Your task to perform on an android device: check data usage Image 0: 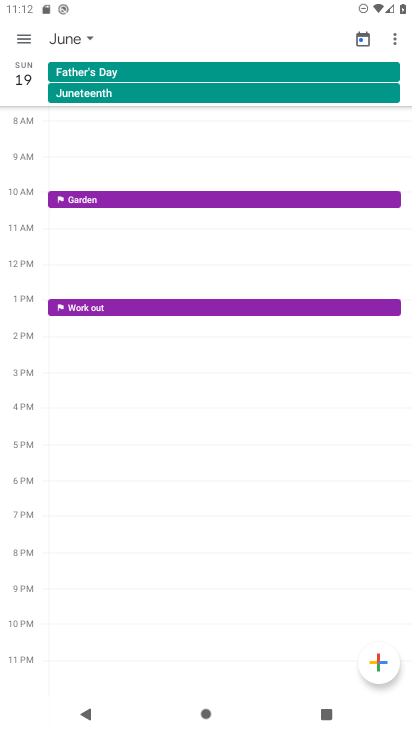
Step 0: press home button
Your task to perform on an android device: check data usage Image 1: 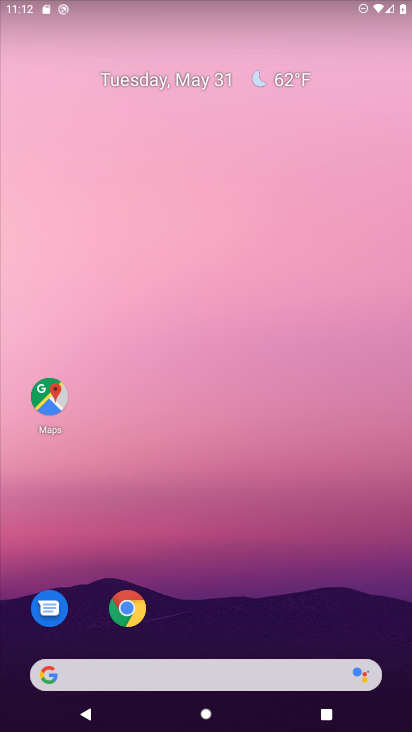
Step 1: drag from (370, 619) to (367, 122)
Your task to perform on an android device: check data usage Image 2: 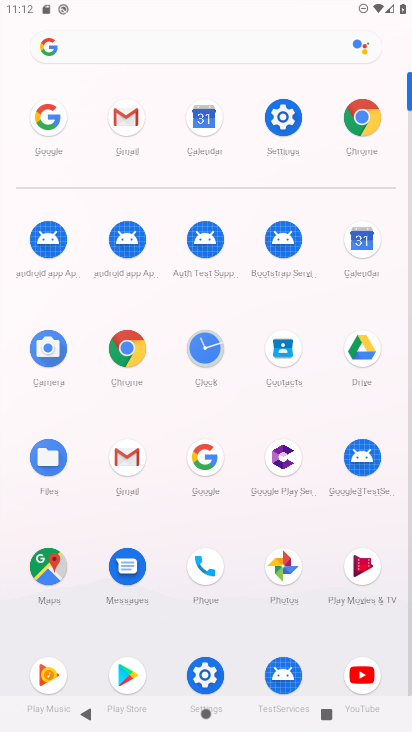
Step 2: click (207, 676)
Your task to perform on an android device: check data usage Image 3: 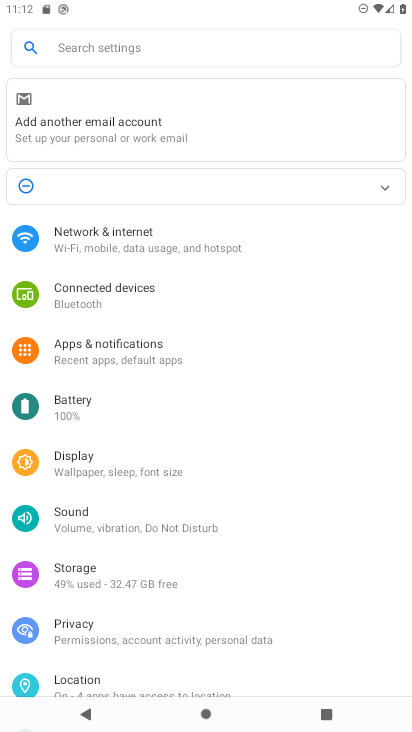
Step 3: drag from (179, 587) to (277, 388)
Your task to perform on an android device: check data usage Image 4: 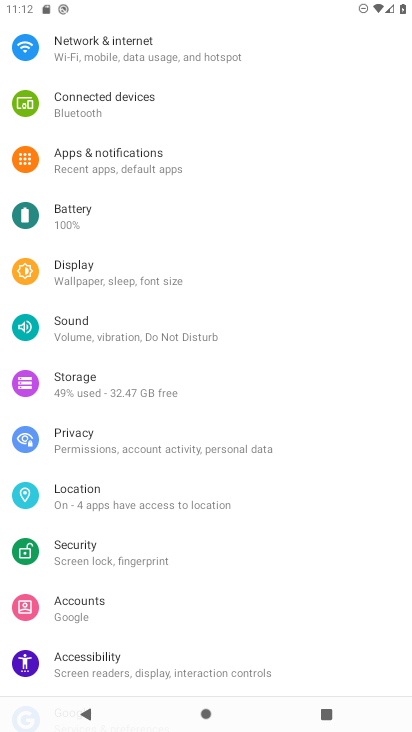
Step 4: drag from (189, 178) to (187, 469)
Your task to perform on an android device: check data usage Image 5: 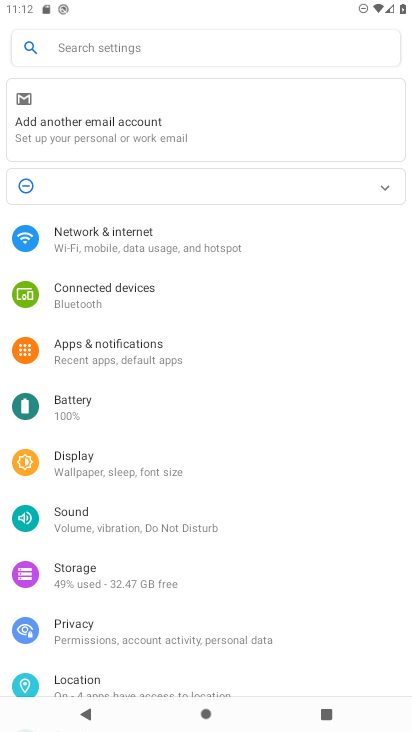
Step 5: click (140, 243)
Your task to perform on an android device: check data usage Image 6: 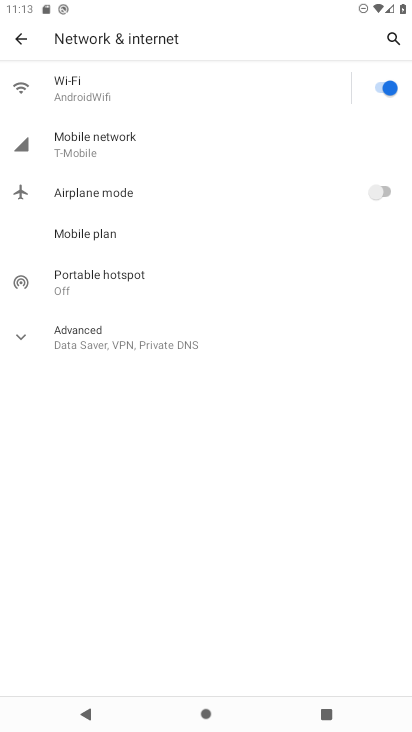
Step 6: click (107, 139)
Your task to perform on an android device: check data usage Image 7: 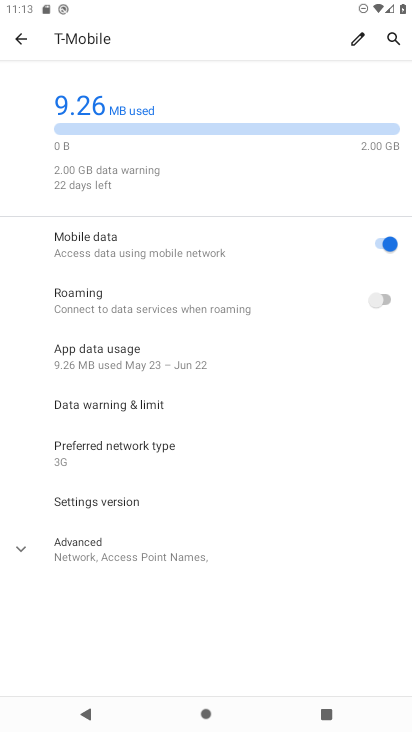
Step 7: task complete